Your task to perform on an android device: change notification settings in the gmail app Image 0: 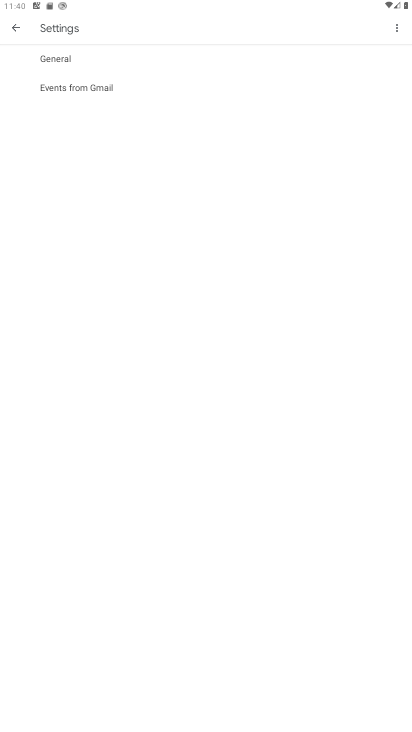
Step 0: press home button
Your task to perform on an android device: change notification settings in the gmail app Image 1: 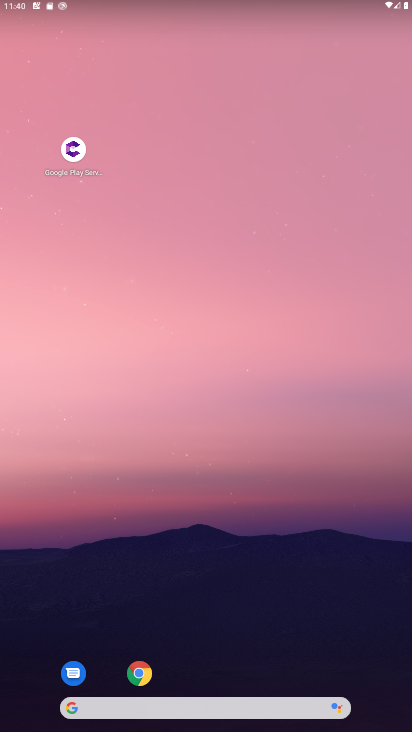
Step 1: drag from (323, 658) to (212, 41)
Your task to perform on an android device: change notification settings in the gmail app Image 2: 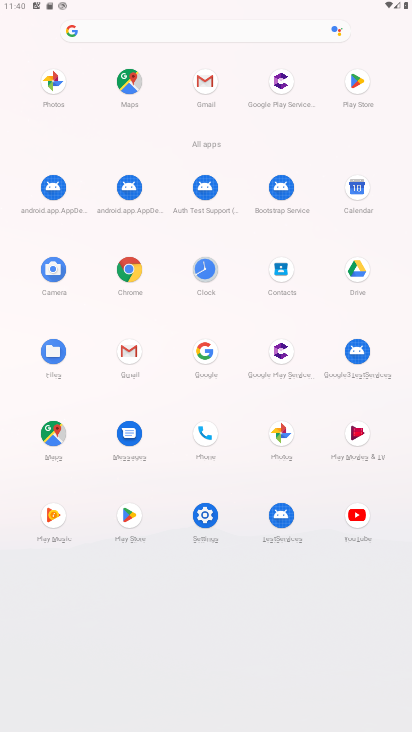
Step 2: click (207, 88)
Your task to perform on an android device: change notification settings in the gmail app Image 3: 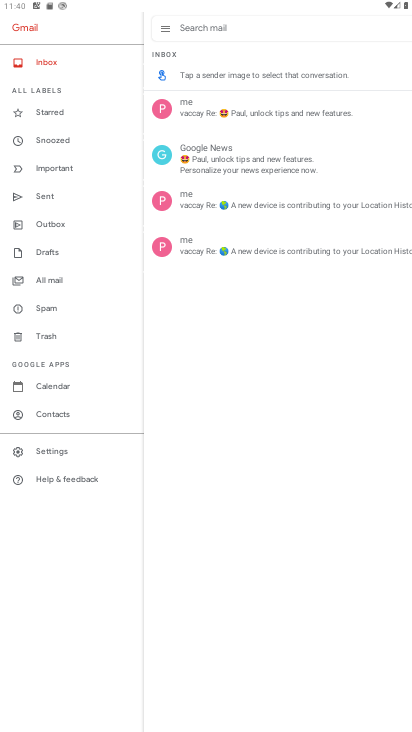
Step 3: click (54, 457)
Your task to perform on an android device: change notification settings in the gmail app Image 4: 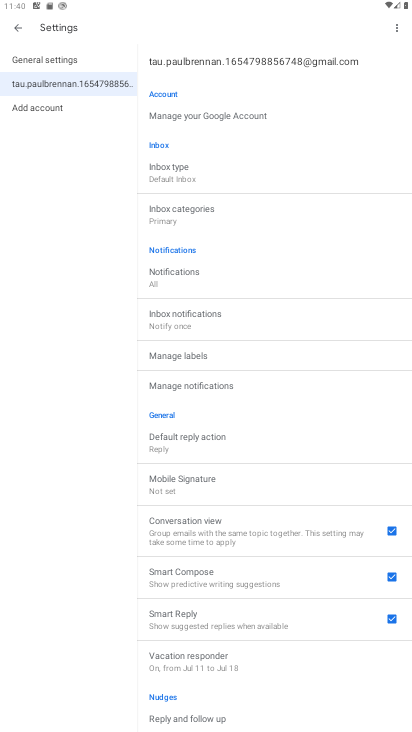
Step 4: click (230, 385)
Your task to perform on an android device: change notification settings in the gmail app Image 5: 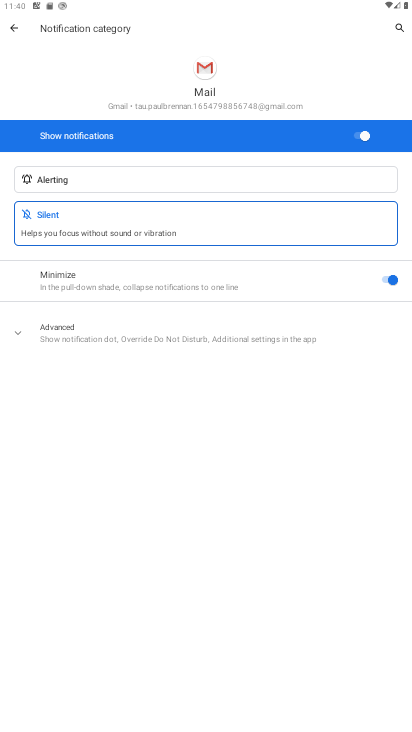
Step 5: click (305, 179)
Your task to perform on an android device: change notification settings in the gmail app Image 6: 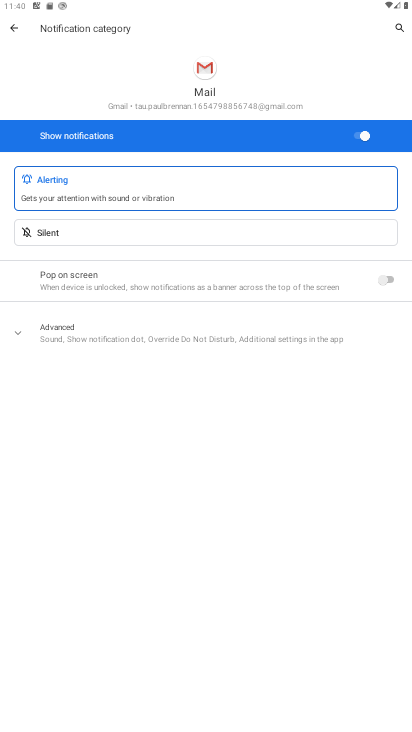
Step 6: click (390, 279)
Your task to perform on an android device: change notification settings in the gmail app Image 7: 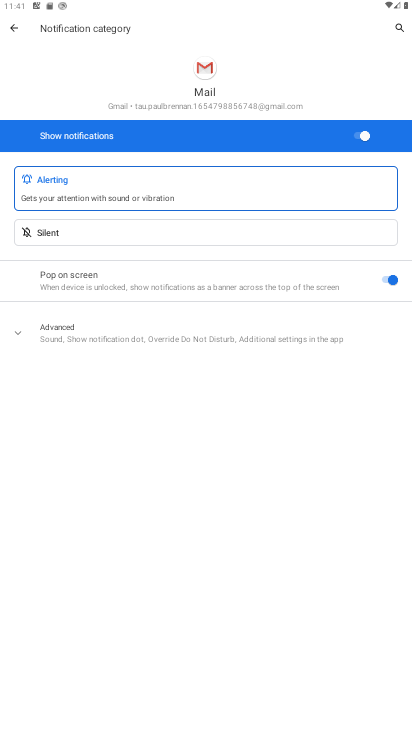
Step 7: task complete